Your task to perform on an android device: Go to eBay Image 0: 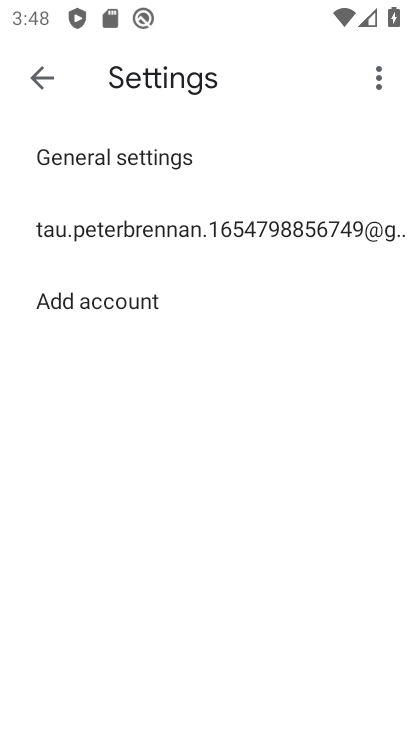
Step 0: press back button
Your task to perform on an android device: Go to eBay Image 1: 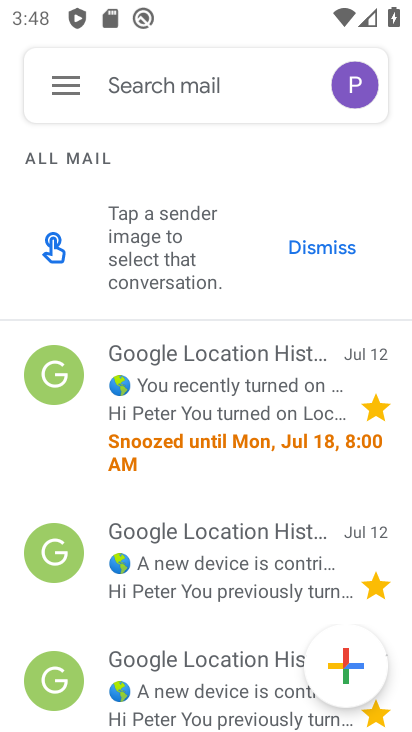
Step 1: press back button
Your task to perform on an android device: Go to eBay Image 2: 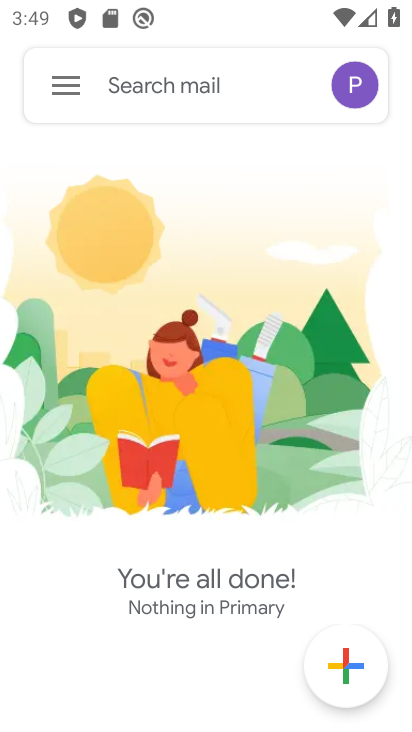
Step 2: press back button
Your task to perform on an android device: Go to eBay Image 3: 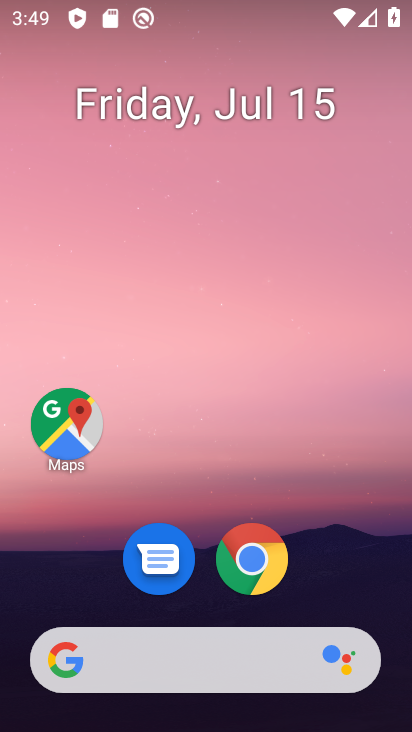
Step 3: click (240, 560)
Your task to perform on an android device: Go to eBay Image 4: 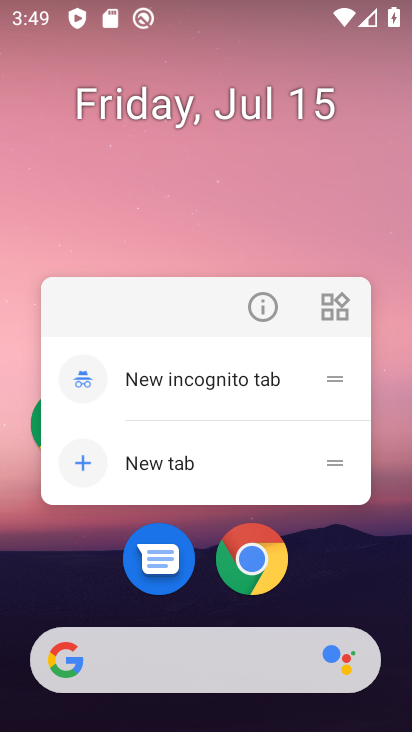
Step 4: click (254, 552)
Your task to perform on an android device: Go to eBay Image 5: 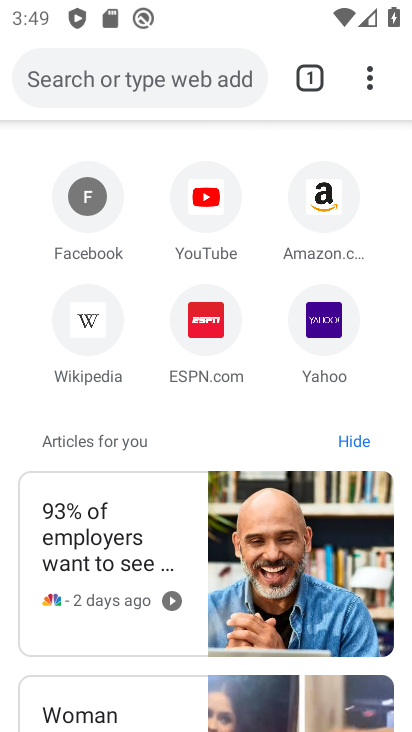
Step 5: click (114, 65)
Your task to perform on an android device: Go to eBay Image 6: 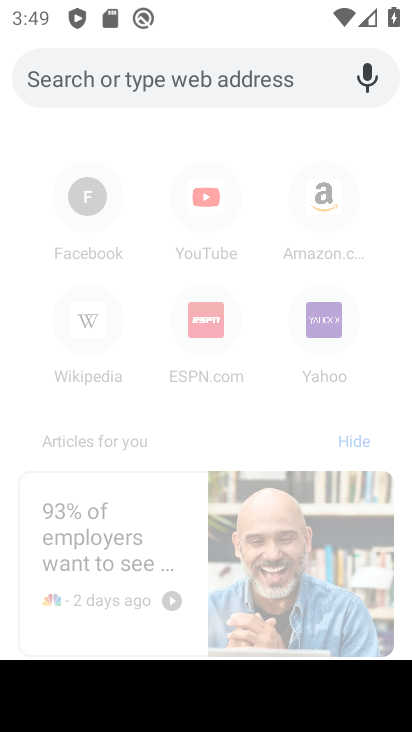
Step 6: type "ebay "
Your task to perform on an android device: Go to eBay Image 7: 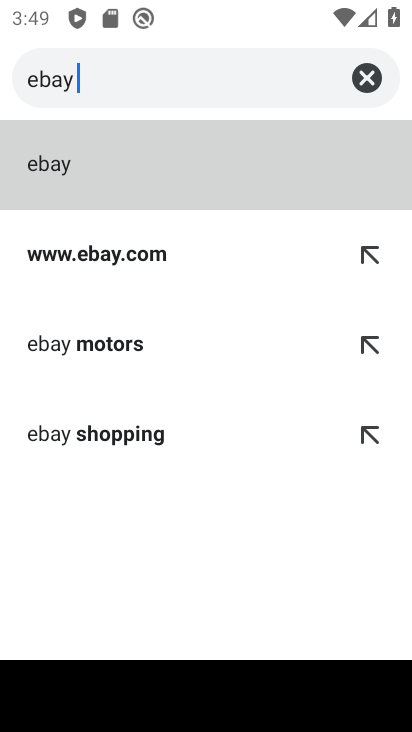
Step 7: click (97, 249)
Your task to perform on an android device: Go to eBay Image 8: 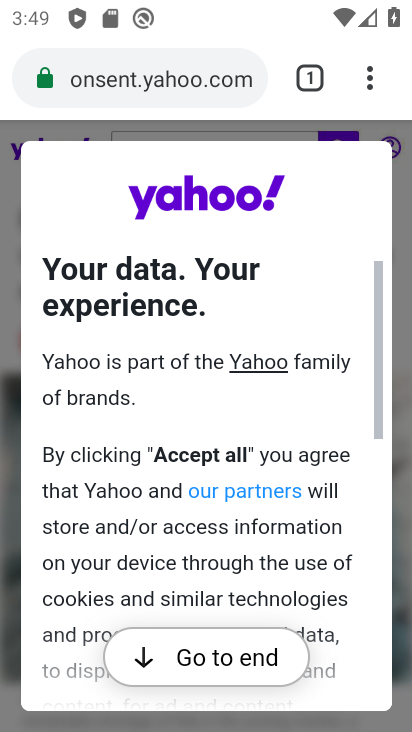
Step 8: click (310, 78)
Your task to perform on an android device: Go to eBay Image 9: 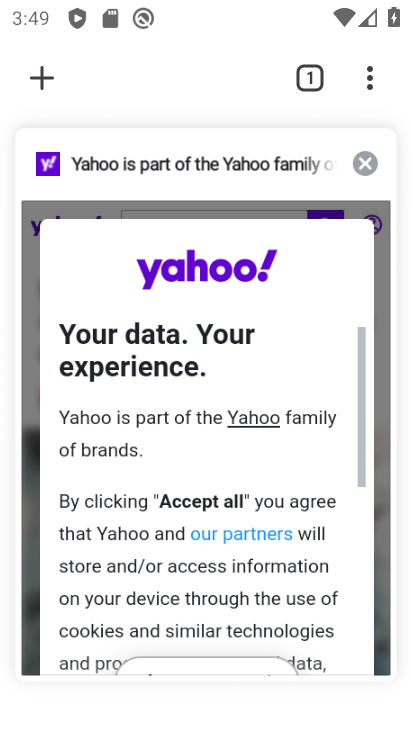
Step 9: click (43, 77)
Your task to perform on an android device: Go to eBay Image 10: 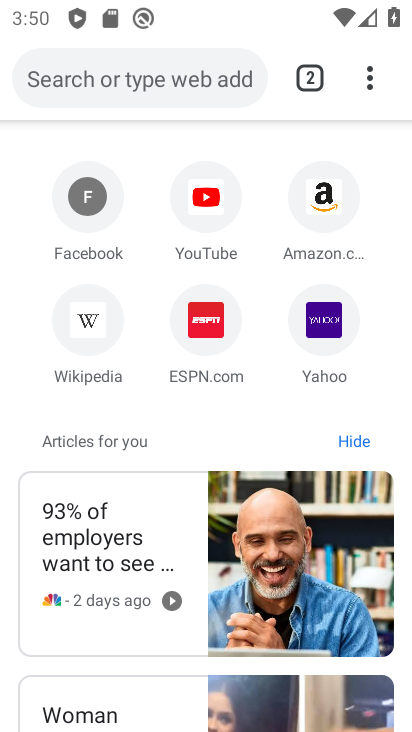
Step 10: click (85, 68)
Your task to perform on an android device: Go to eBay Image 11: 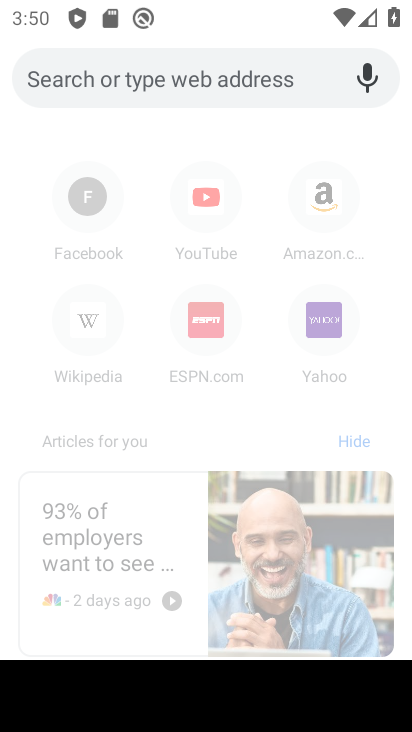
Step 11: type "ebay"
Your task to perform on an android device: Go to eBay Image 12: 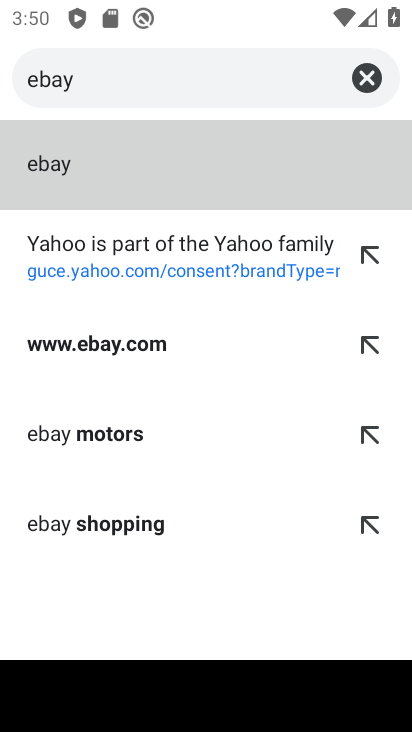
Step 12: click (150, 334)
Your task to perform on an android device: Go to eBay Image 13: 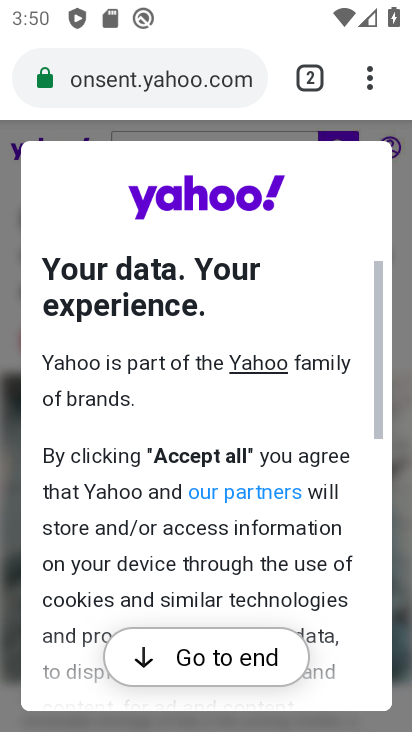
Step 13: task complete